Your task to perform on an android device: Check the settings for the Netflix app Image 0: 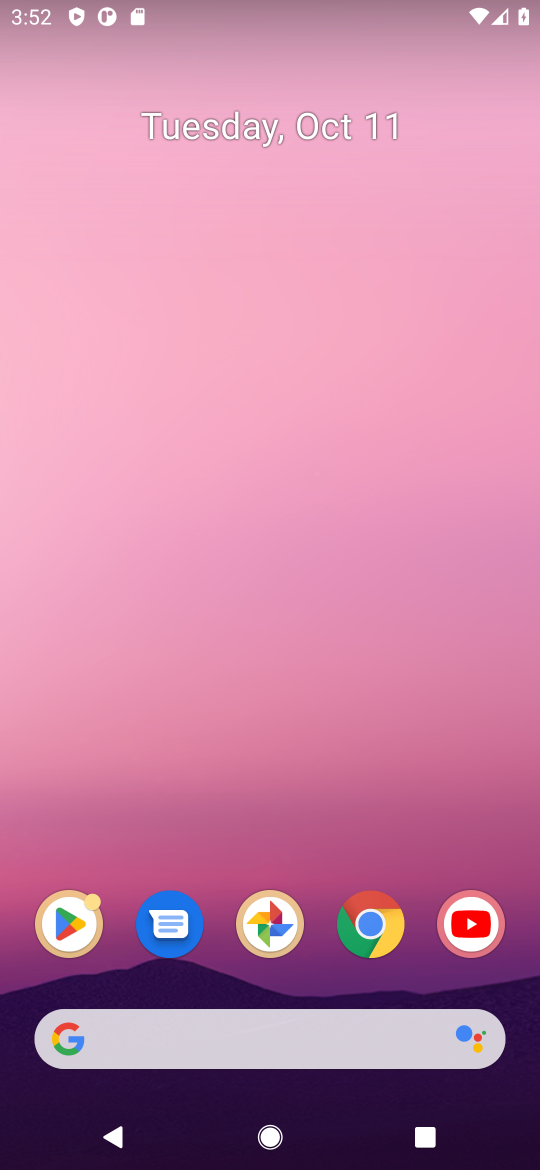
Step 0: click (404, 26)
Your task to perform on an android device: Check the settings for the Netflix app Image 1: 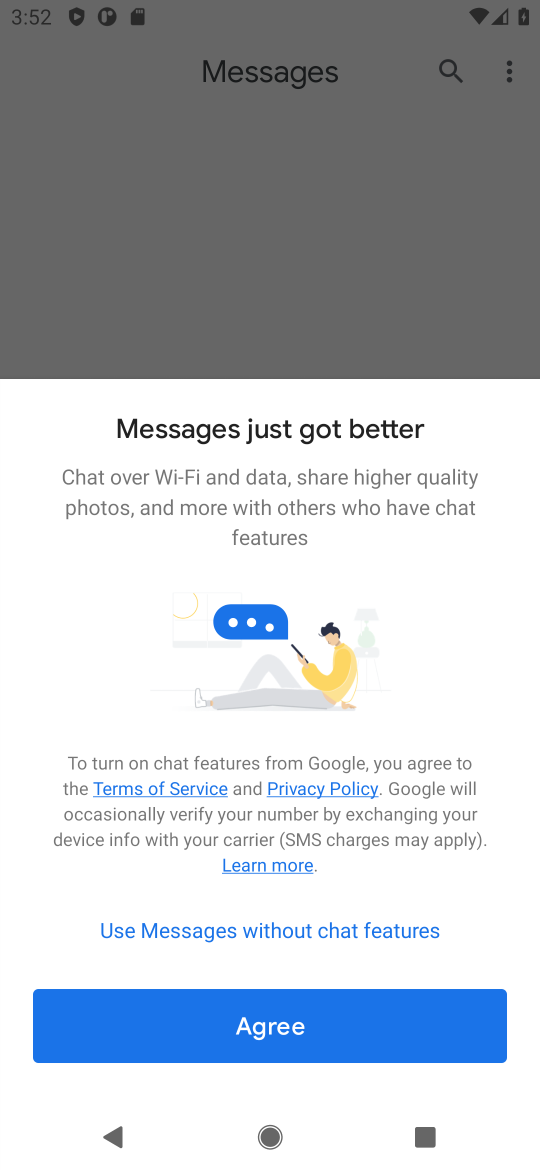
Step 1: task complete